Your task to perform on an android device: Open network settings Image 0: 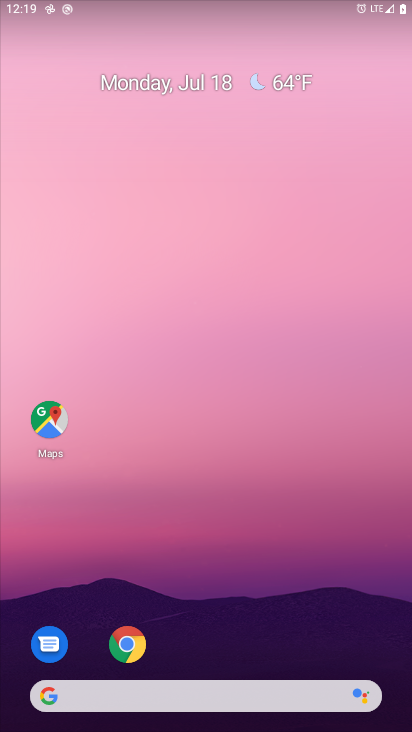
Step 0: press home button
Your task to perform on an android device: Open network settings Image 1: 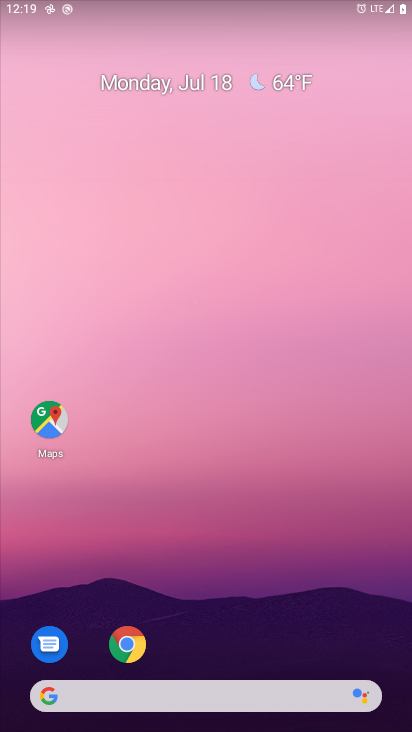
Step 1: drag from (289, 598) to (314, 97)
Your task to perform on an android device: Open network settings Image 2: 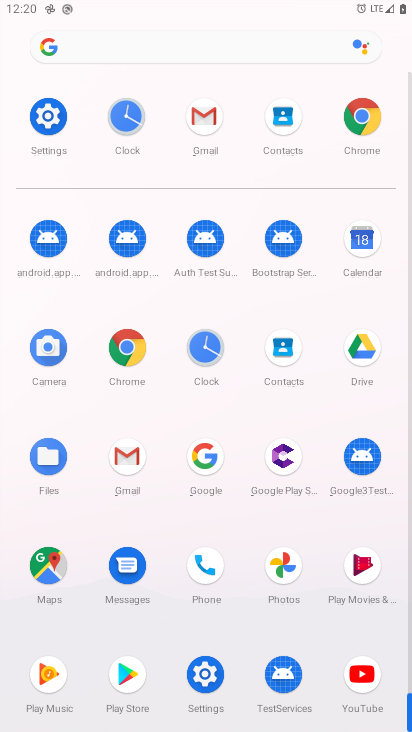
Step 2: click (48, 112)
Your task to perform on an android device: Open network settings Image 3: 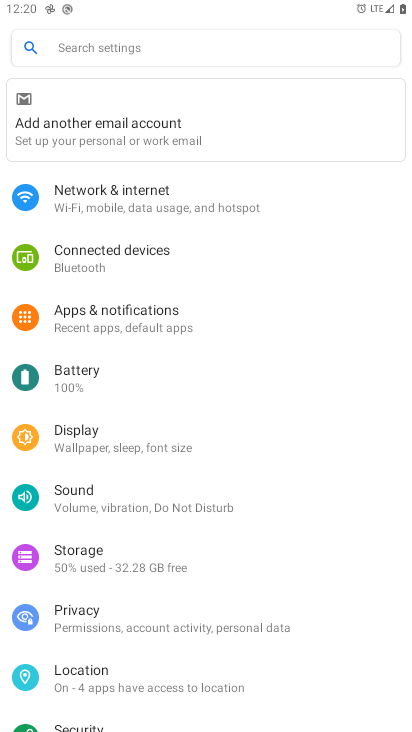
Step 3: click (116, 195)
Your task to perform on an android device: Open network settings Image 4: 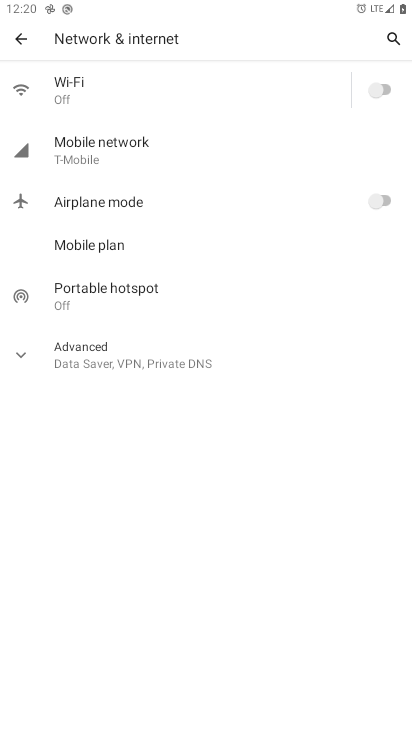
Step 4: task complete